Your task to perform on an android device: Go to wifi settings Image 0: 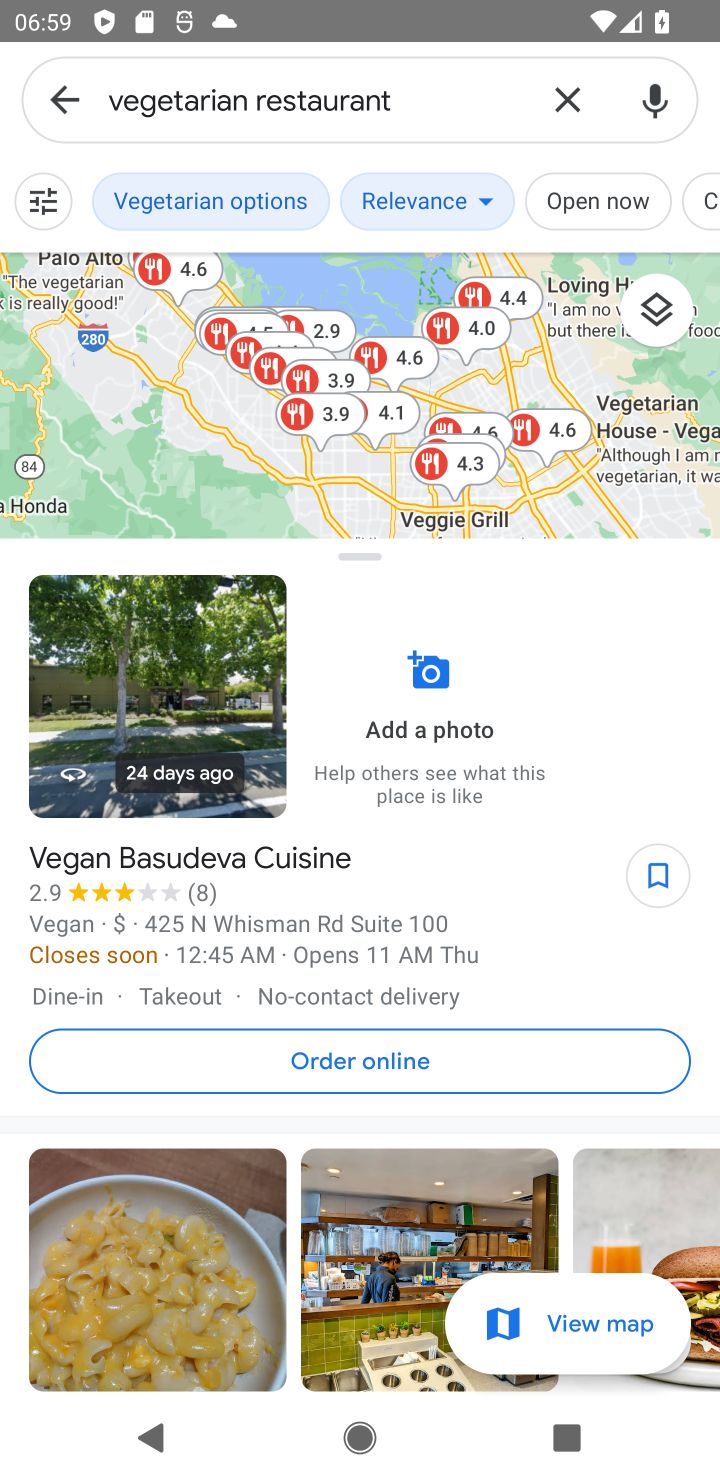
Step 0: press home button
Your task to perform on an android device: Go to wifi settings Image 1: 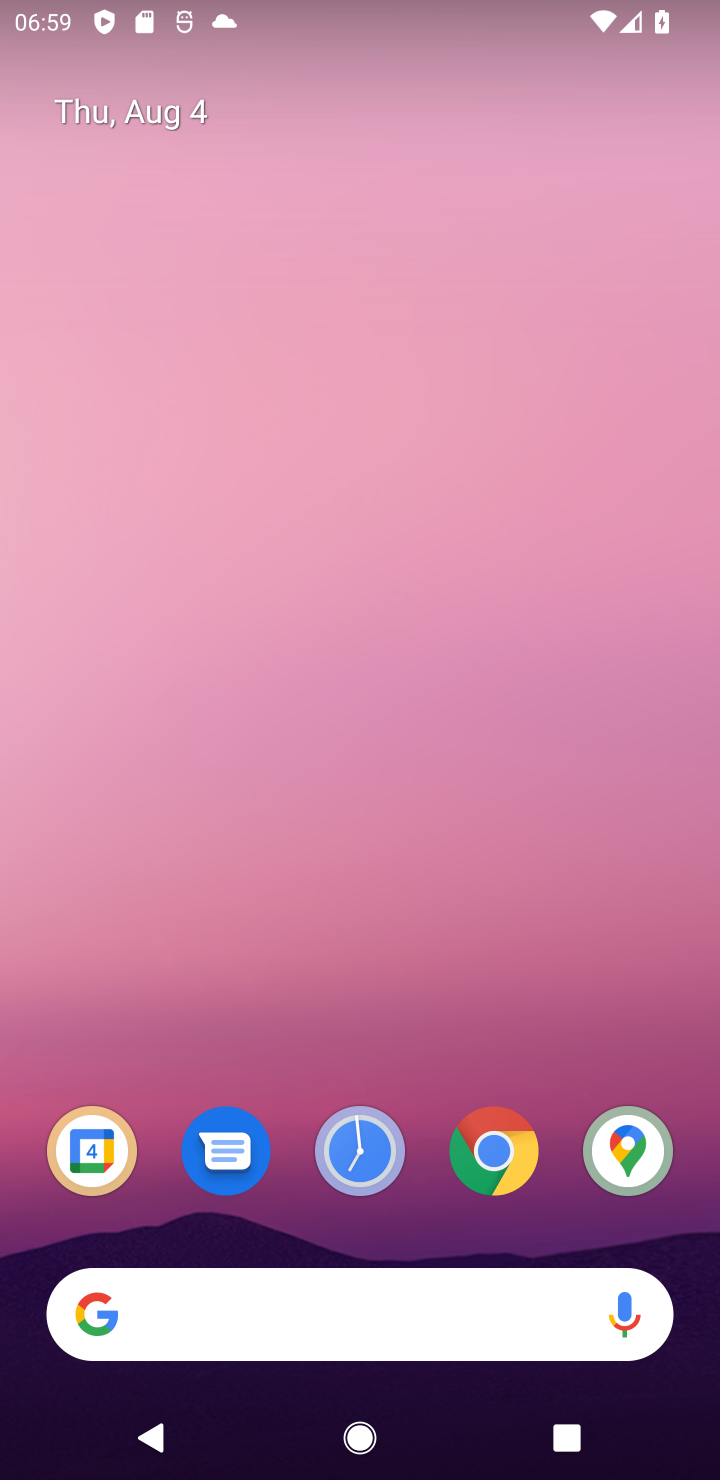
Step 1: drag from (307, 1235) to (284, 4)
Your task to perform on an android device: Go to wifi settings Image 2: 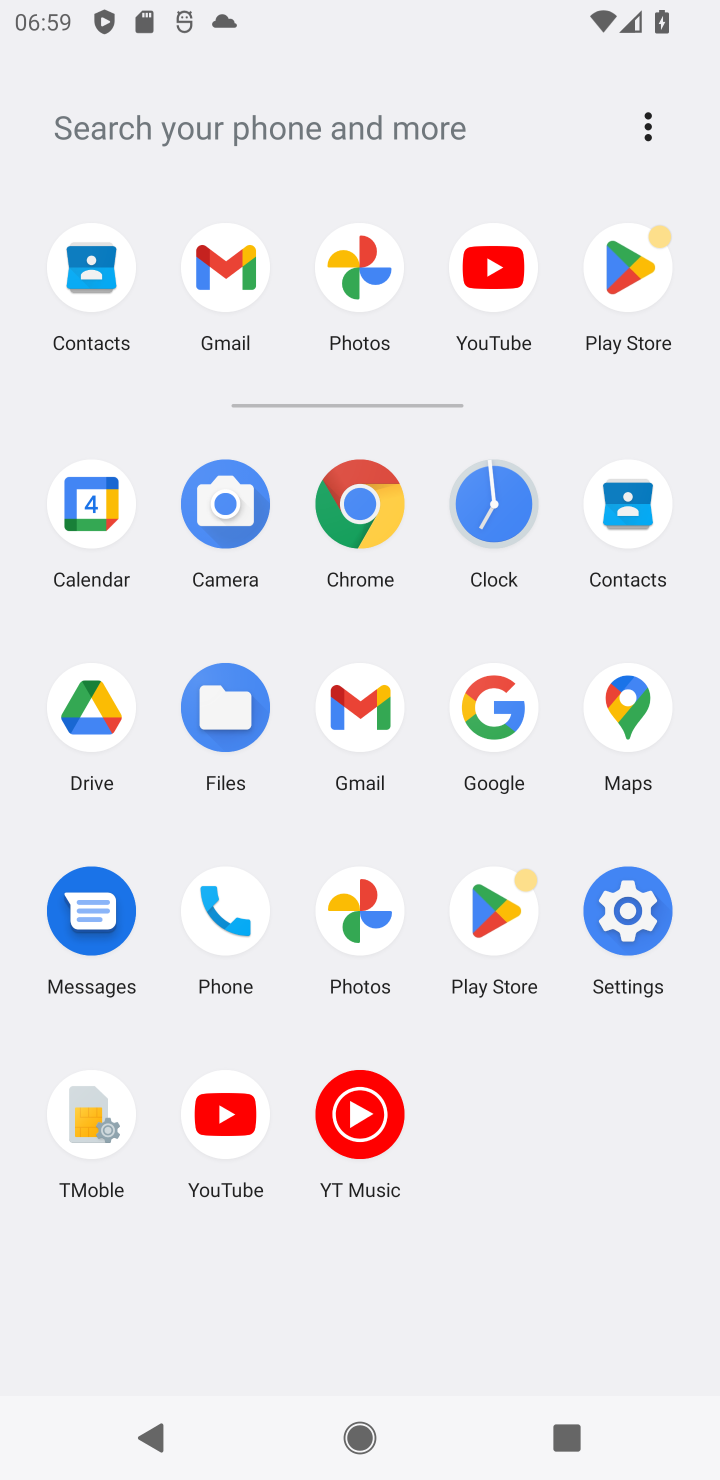
Step 2: click (652, 928)
Your task to perform on an android device: Go to wifi settings Image 3: 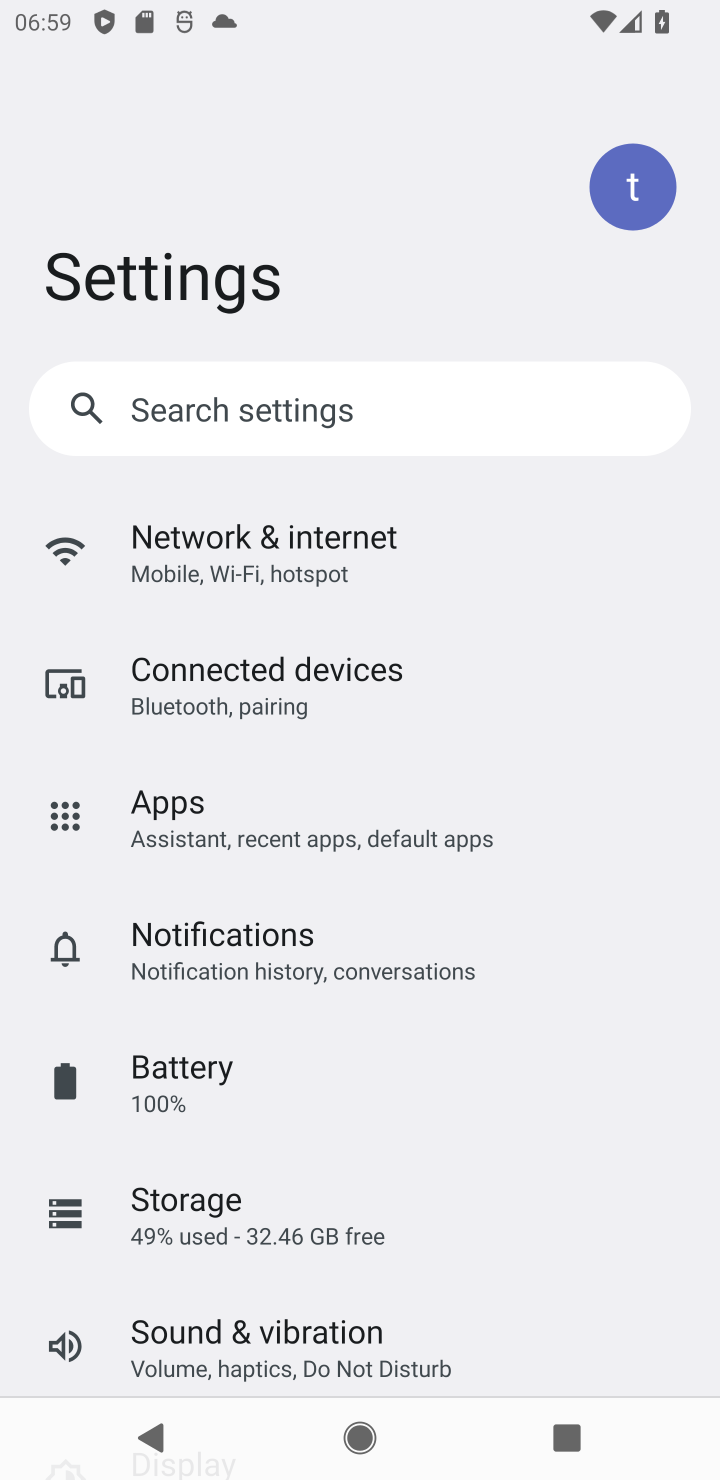
Step 3: click (290, 554)
Your task to perform on an android device: Go to wifi settings Image 4: 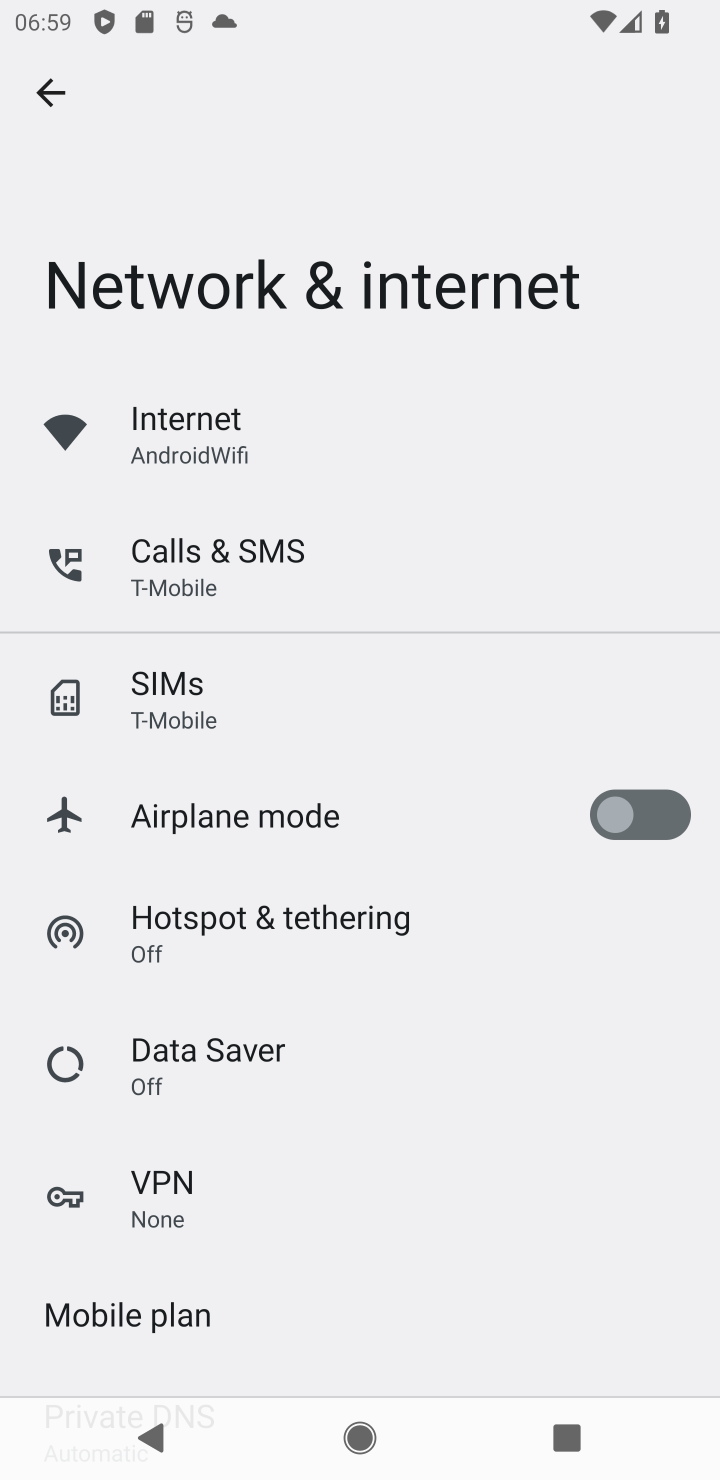
Step 4: click (196, 433)
Your task to perform on an android device: Go to wifi settings Image 5: 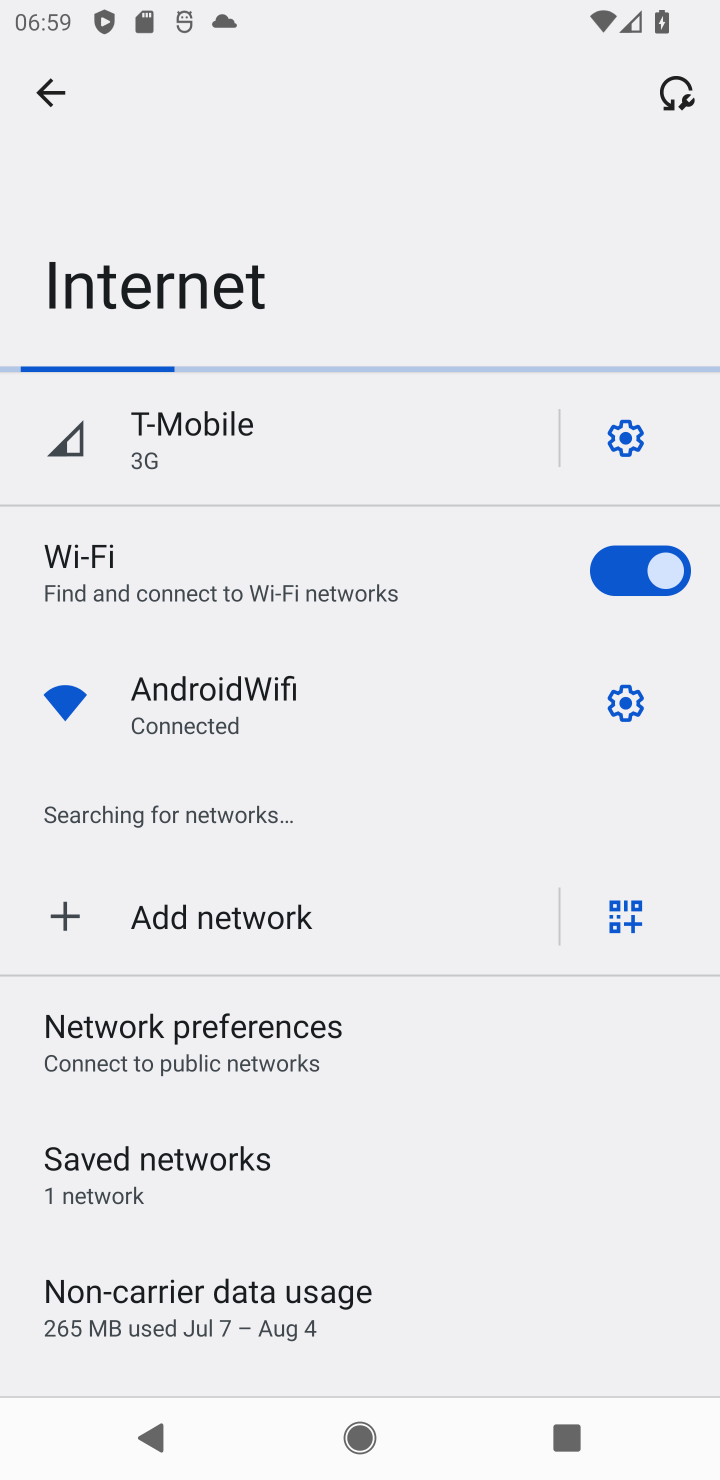
Step 5: task complete